Your task to perform on an android device: Open calendar and show me the third week of next month Image 0: 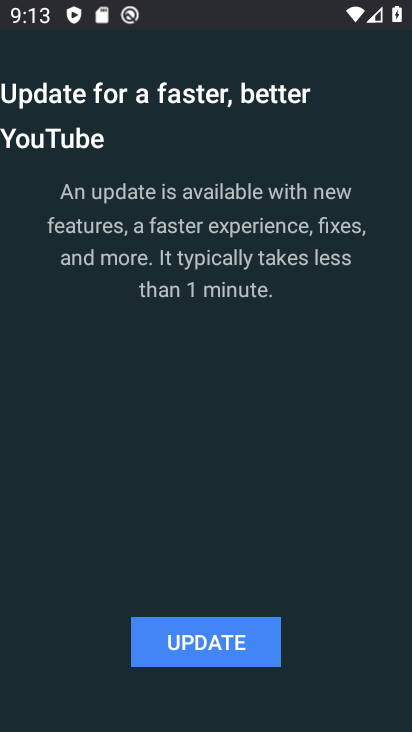
Step 0: press back button
Your task to perform on an android device: Open calendar and show me the third week of next month Image 1: 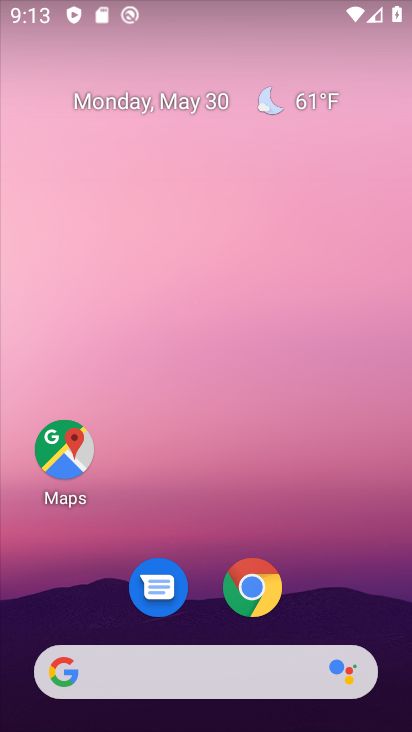
Step 1: drag from (313, 656) to (342, 43)
Your task to perform on an android device: Open calendar and show me the third week of next month Image 2: 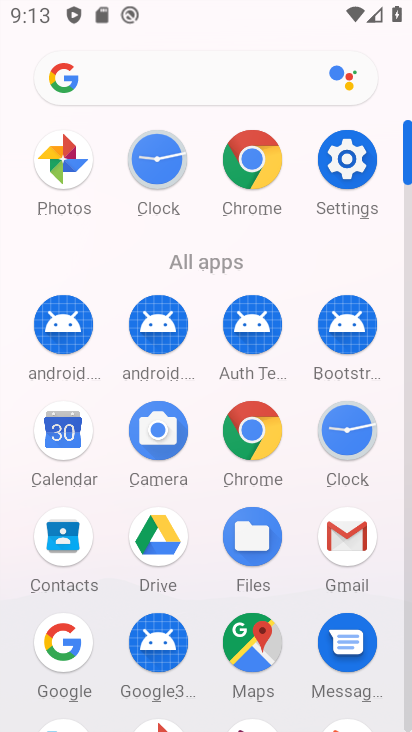
Step 2: click (48, 431)
Your task to perform on an android device: Open calendar and show me the third week of next month Image 3: 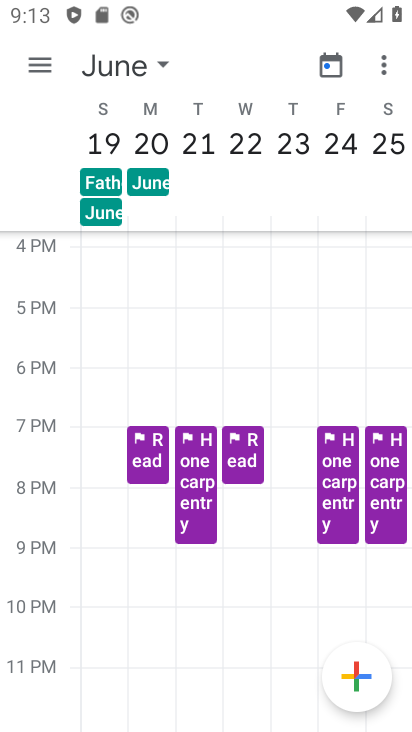
Step 3: task complete